Your task to perform on an android device: toggle notifications settings in the gmail app Image 0: 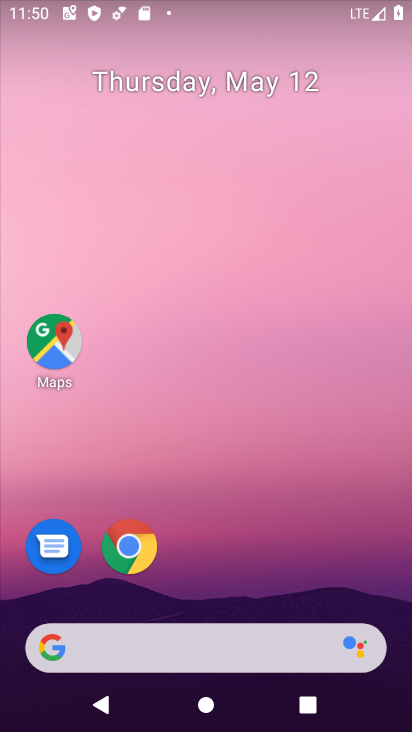
Step 0: drag from (256, 556) to (288, 56)
Your task to perform on an android device: toggle notifications settings in the gmail app Image 1: 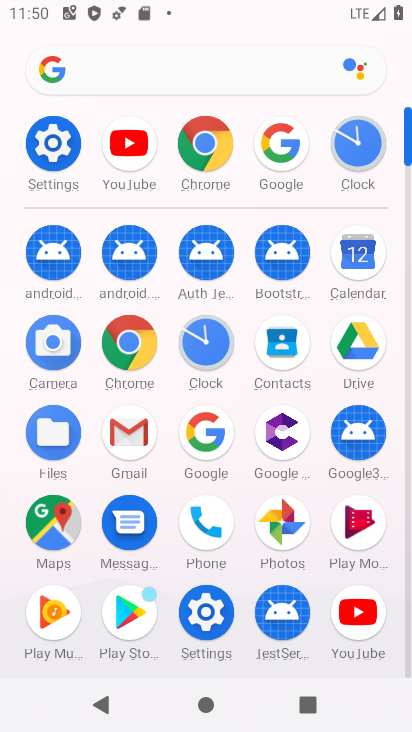
Step 1: click (127, 433)
Your task to perform on an android device: toggle notifications settings in the gmail app Image 2: 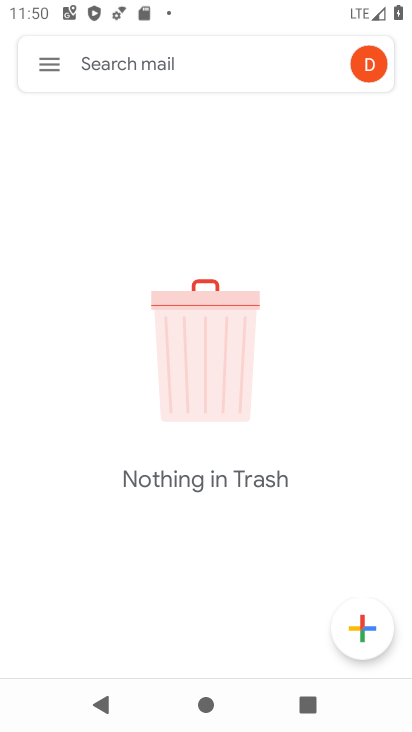
Step 2: click (51, 65)
Your task to perform on an android device: toggle notifications settings in the gmail app Image 3: 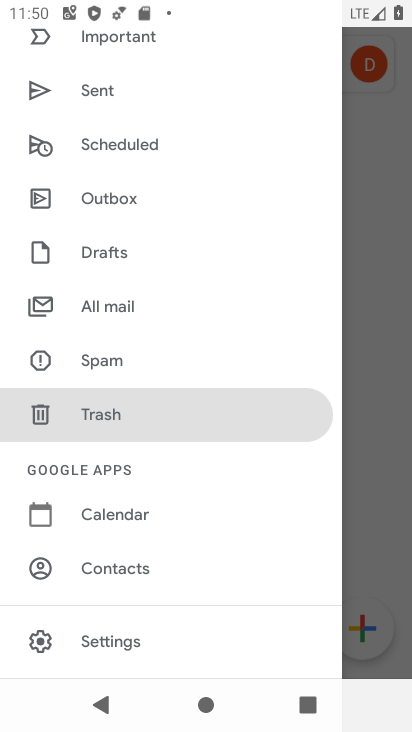
Step 3: click (115, 643)
Your task to perform on an android device: toggle notifications settings in the gmail app Image 4: 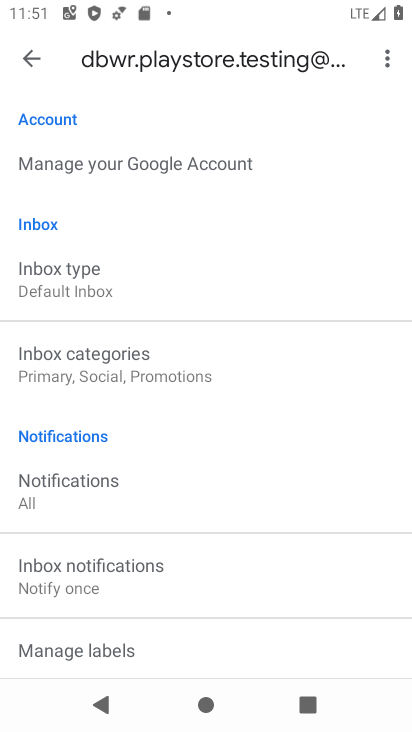
Step 4: drag from (304, 612) to (300, 300)
Your task to perform on an android device: toggle notifications settings in the gmail app Image 5: 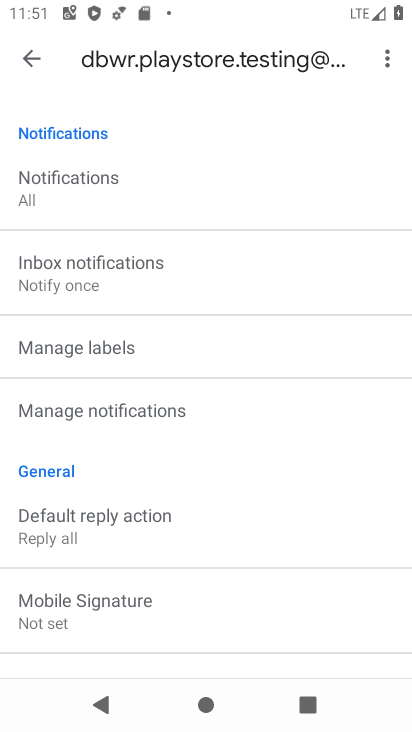
Step 5: click (82, 413)
Your task to perform on an android device: toggle notifications settings in the gmail app Image 6: 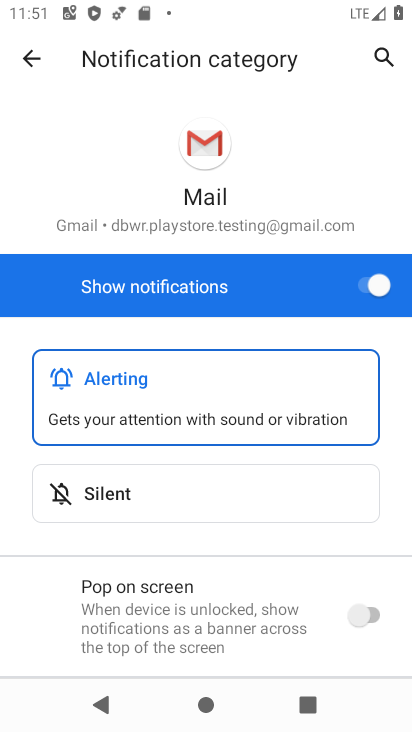
Step 6: click (356, 287)
Your task to perform on an android device: toggle notifications settings in the gmail app Image 7: 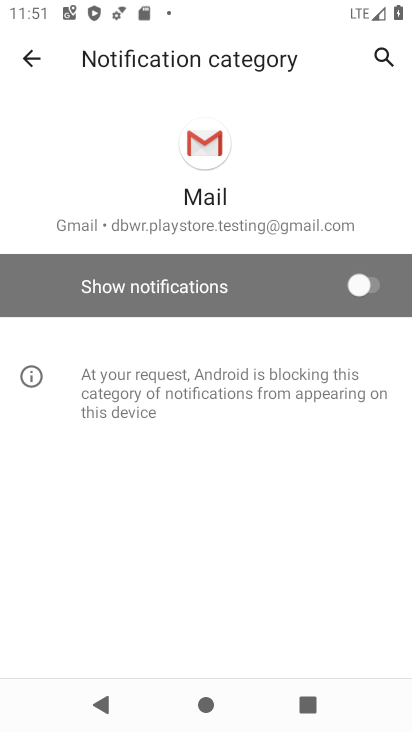
Step 7: task complete